Your task to perform on an android device: Open CNN.com Image 0: 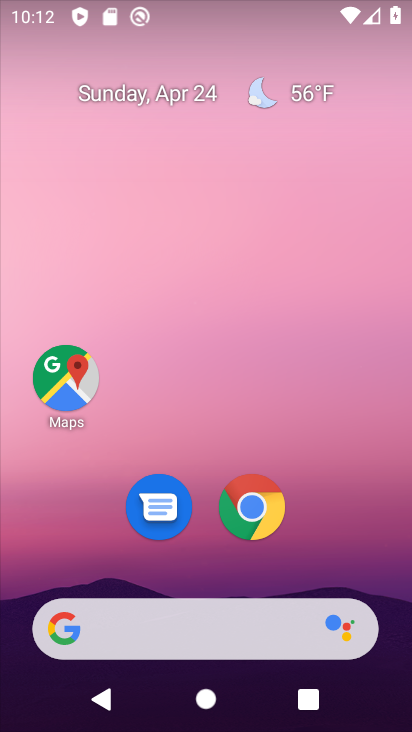
Step 0: click (241, 500)
Your task to perform on an android device: Open CNN.com Image 1: 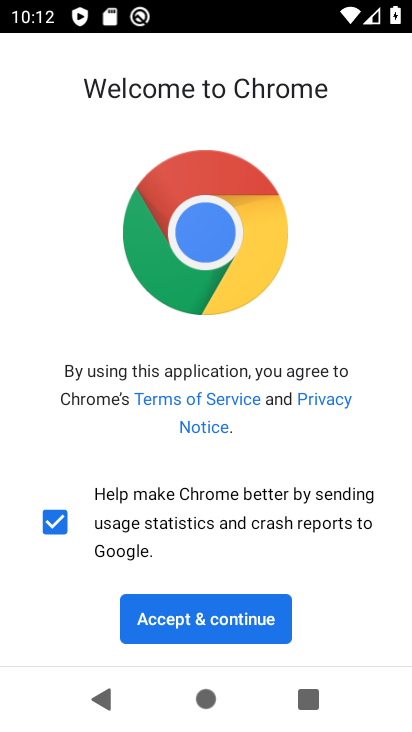
Step 1: click (200, 626)
Your task to perform on an android device: Open CNN.com Image 2: 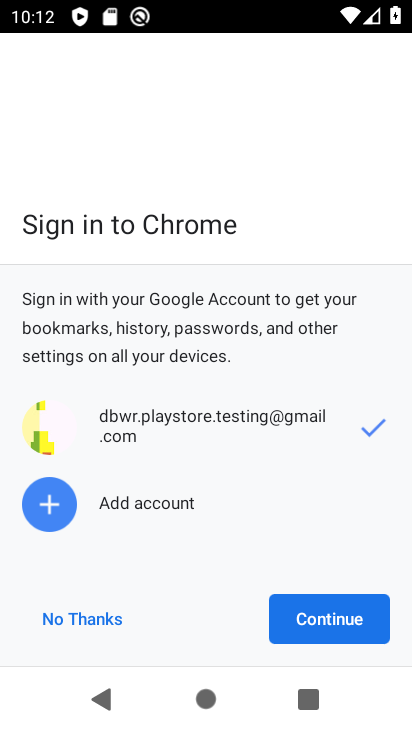
Step 2: click (341, 618)
Your task to perform on an android device: Open CNN.com Image 3: 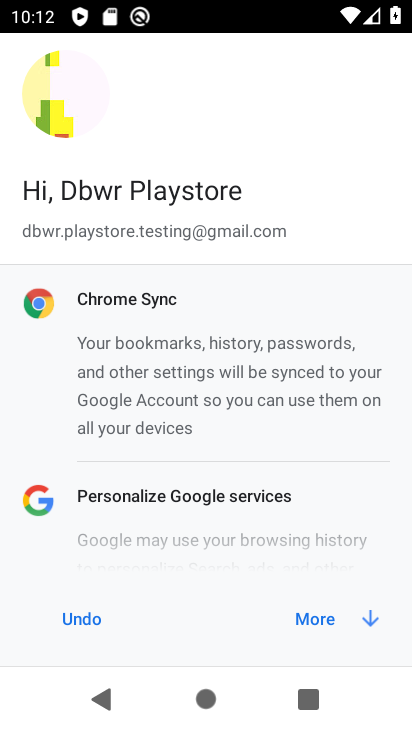
Step 3: click (305, 620)
Your task to perform on an android device: Open CNN.com Image 4: 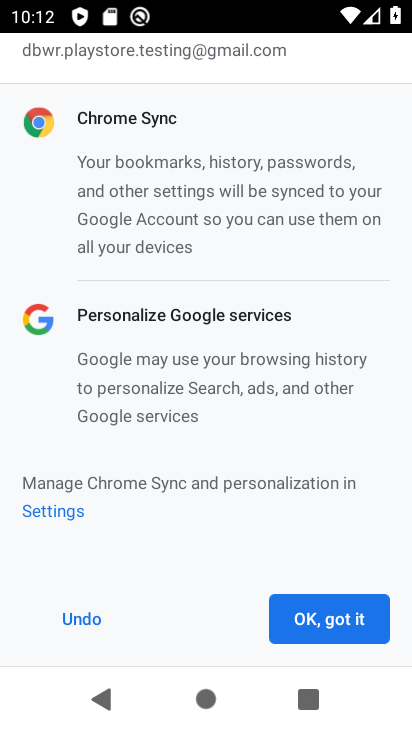
Step 4: click (305, 620)
Your task to perform on an android device: Open CNN.com Image 5: 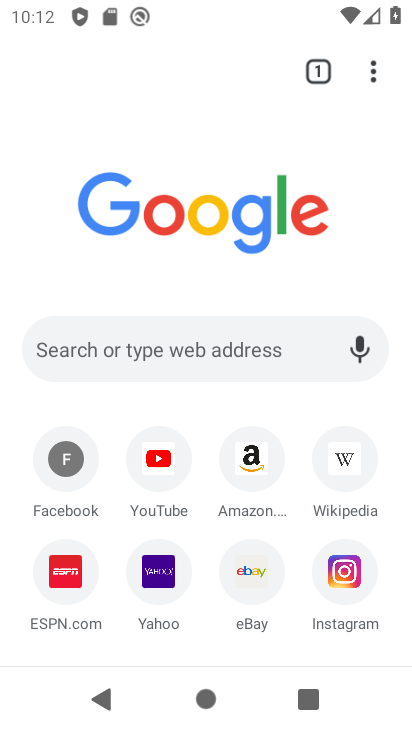
Step 5: click (141, 346)
Your task to perform on an android device: Open CNN.com Image 6: 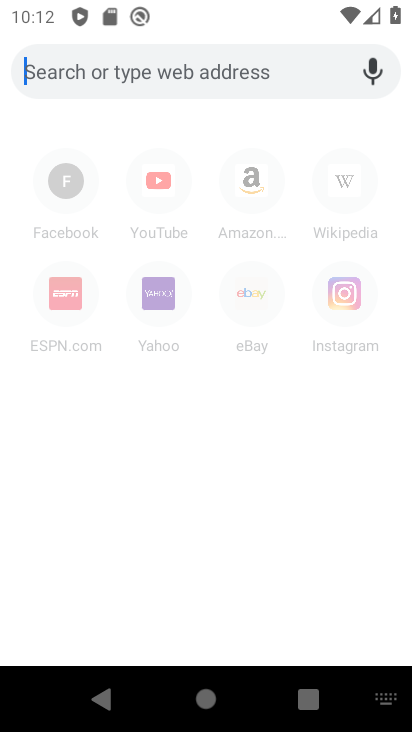
Step 6: type "cnn.com"
Your task to perform on an android device: Open CNN.com Image 7: 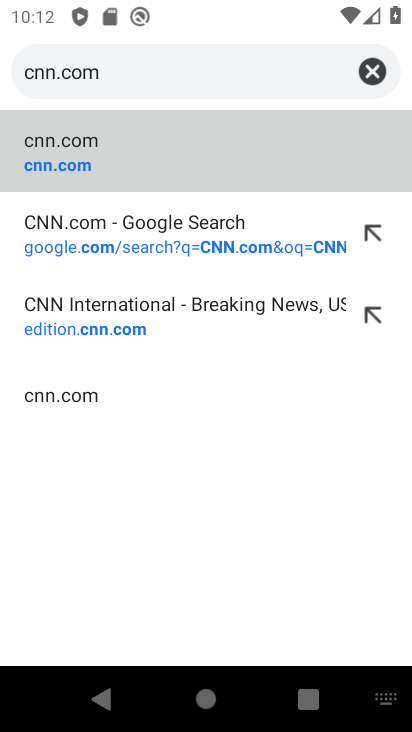
Step 7: click (75, 147)
Your task to perform on an android device: Open CNN.com Image 8: 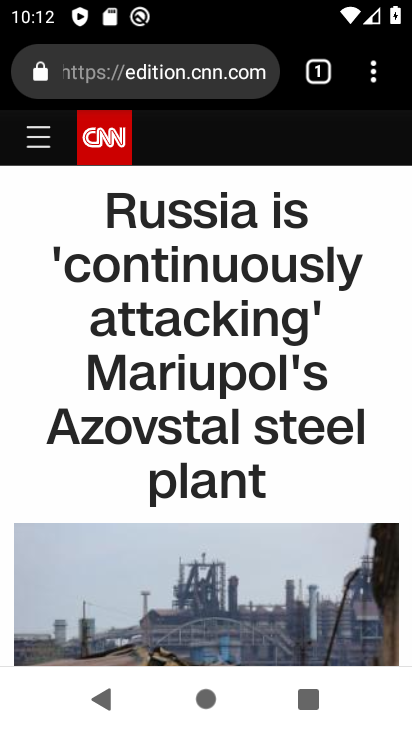
Step 8: task complete